Your task to perform on an android device: turn on notifications settings in the gmail app Image 0: 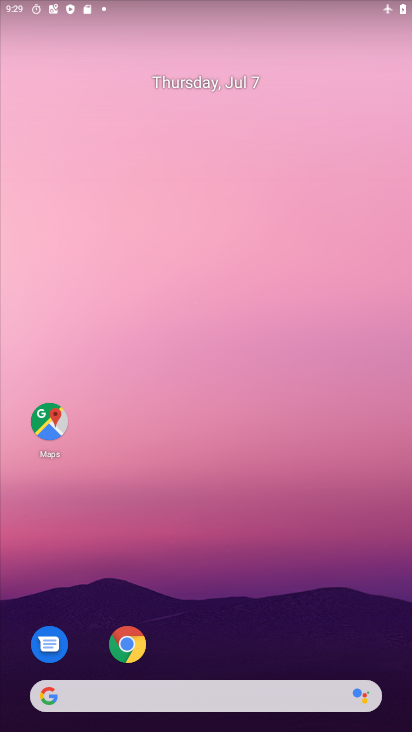
Step 0: drag from (292, 628) to (248, 145)
Your task to perform on an android device: turn on notifications settings in the gmail app Image 1: 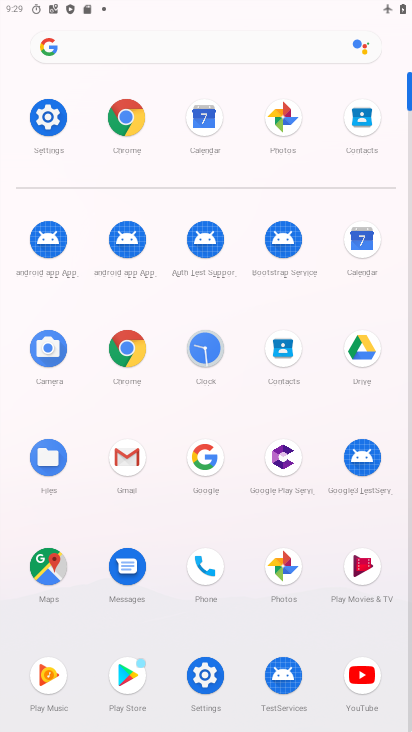
Step 1: click (130, 456)
Your task to perform on an android device: turn on notifications settings in the gmail app Image 2: 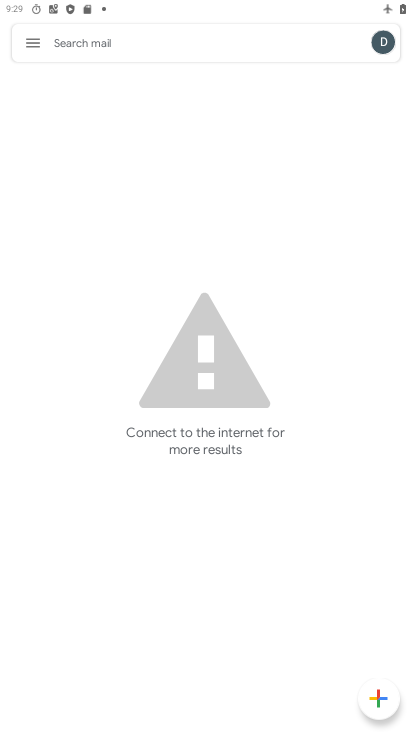
Step 2: click (32, 35)
Your task to perform on an android device: turn on notifications settings in the gmail app Image 3: 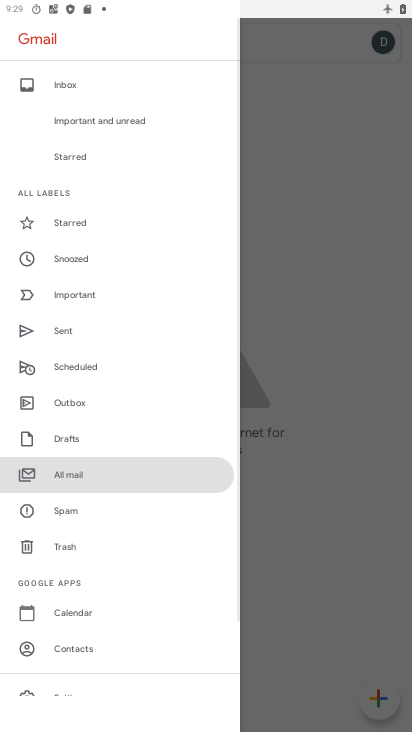
Step 3: drag from (97, 634) to (113, 191)
Your task to perform on an android device: turn on notifications settings in the gmail app Image 4: 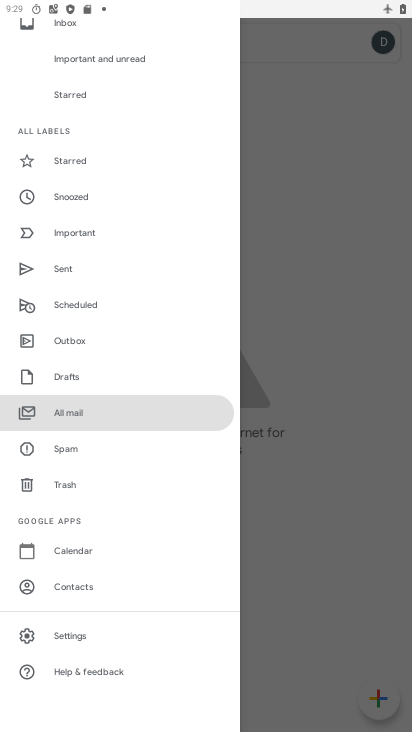
Step 4: click (78, 637)
Your task to perform on an android device: turn on notifications settings in the gmail app Image 5: 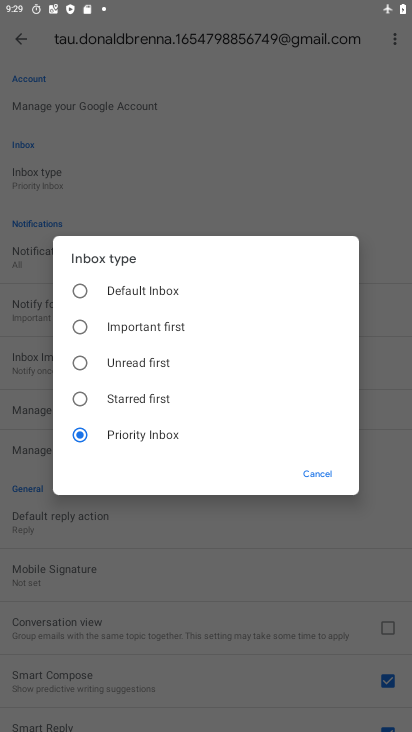
Step 5: click (317, 475)
Your task to perform on an android device: turn on notifications settings in the gmail app Image 6: 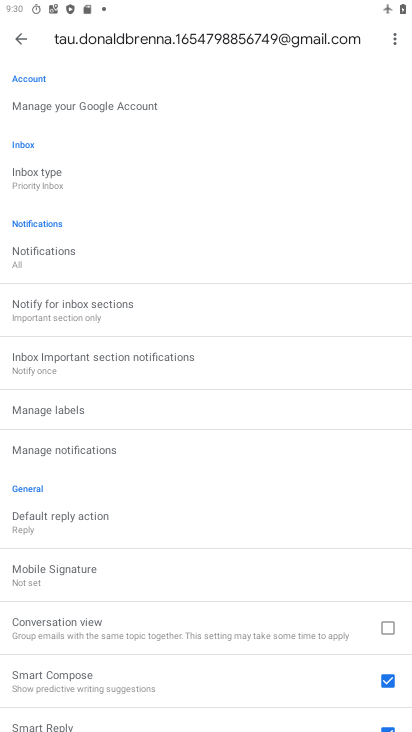
Step 6: click (88, 452)
Your task to perform on an android device: turn on notifications settings in the gmail app Image 7: 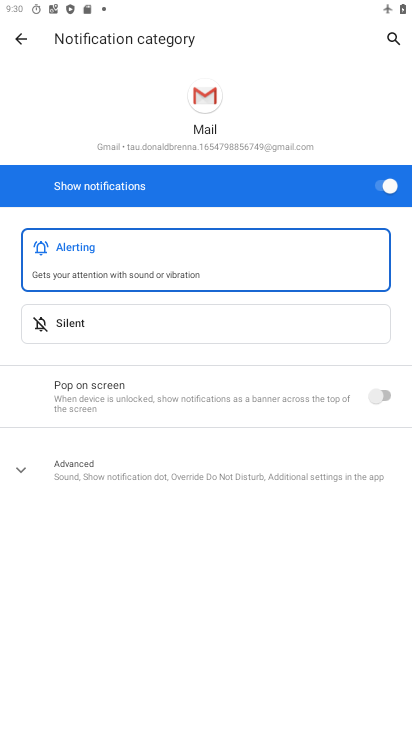
Step 7: task complete